Your task to perform on an android device: Open Google Maps and go to "Timeline" Image 0: 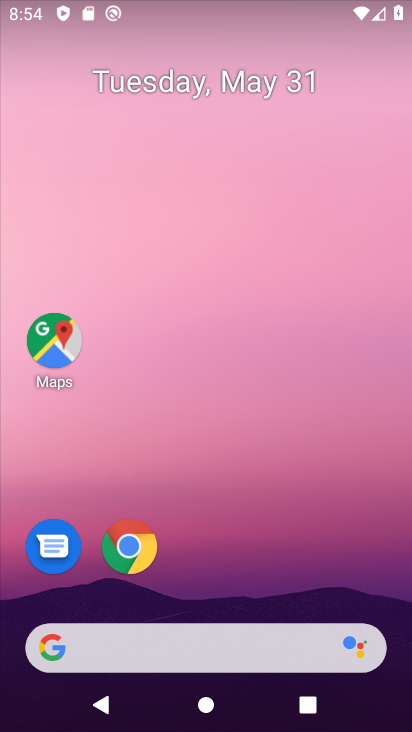
Step 0: click (46, 344)
Your task to perform on an android device: Open Google Maps and go to "Timeline" Image 1: 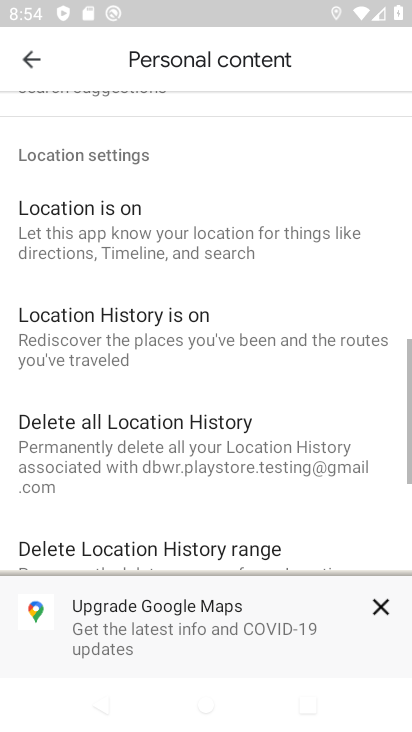
Step 1: click (23, 48)
Your task to perform on an android device: Open Google Maps and go to "Timeline" Image 2: 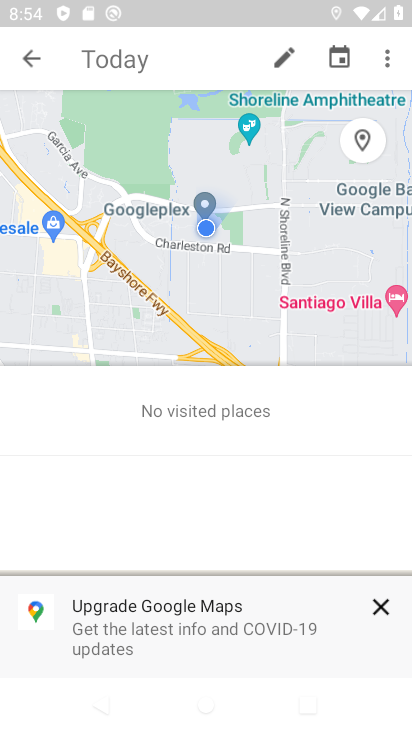
Step 2: click (19, 61)
Your task to perform on an android device: Open Google Maps and go to "Timeline" Image 3: 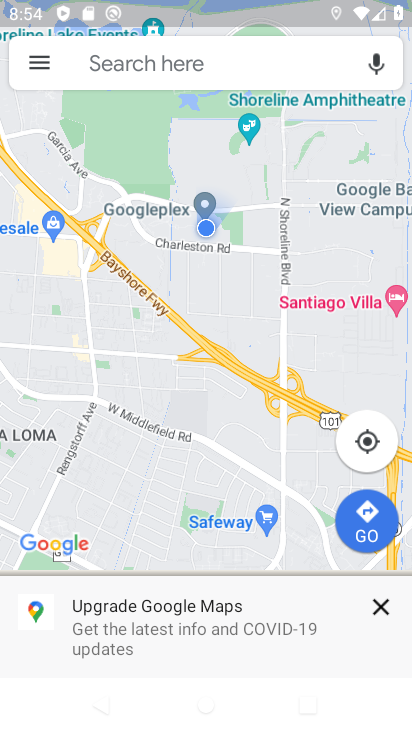
Step 3: click (29, 60)
Your task to perform on an android device: Open Google Maps and go to "Timeline" Image 4: 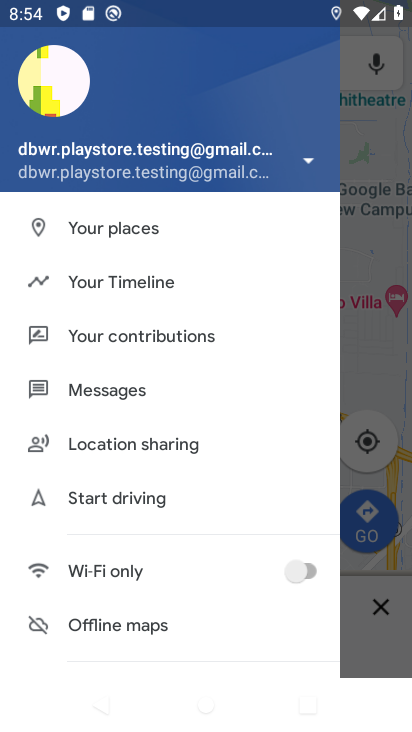
Step 4: click (122, 288)
Your task to perform on an android device: Open Google Maps and go to "Timeline" Image 5: 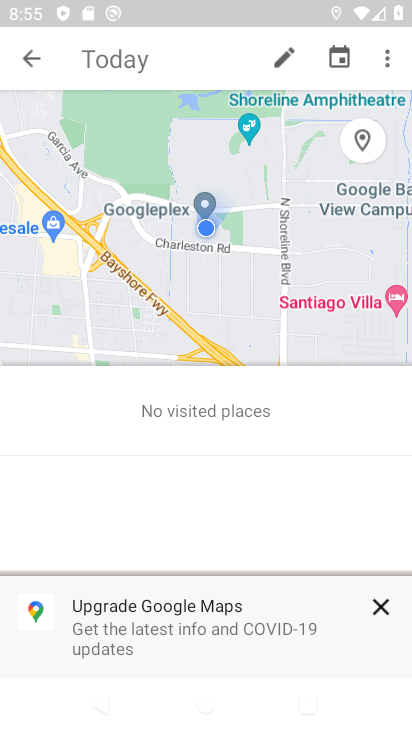
Step 5: task complete